Your task to perform on an android device: Open Google Image 0: 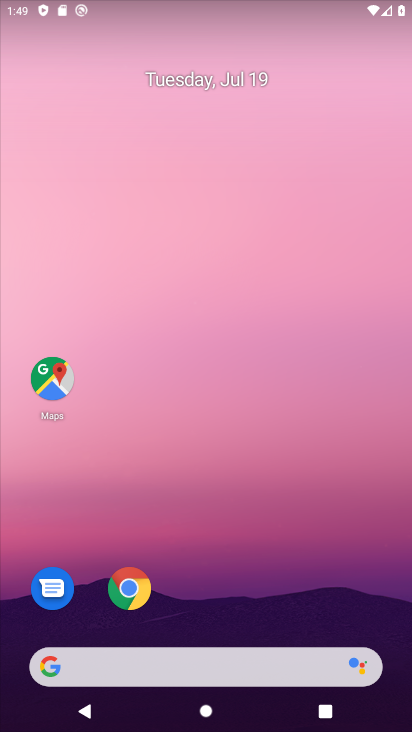
Step 0: click (50, 667)
Your task to perform on an android device: Open Google Image 1: 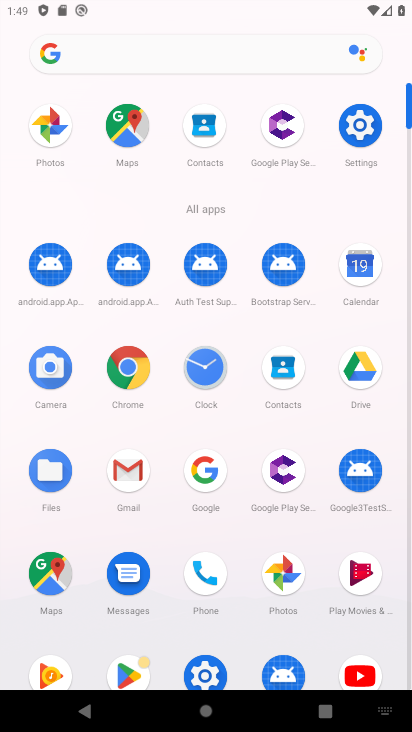
Step 1: click (201, 468)
Your task to perform on an android device: Open Google Image 2: 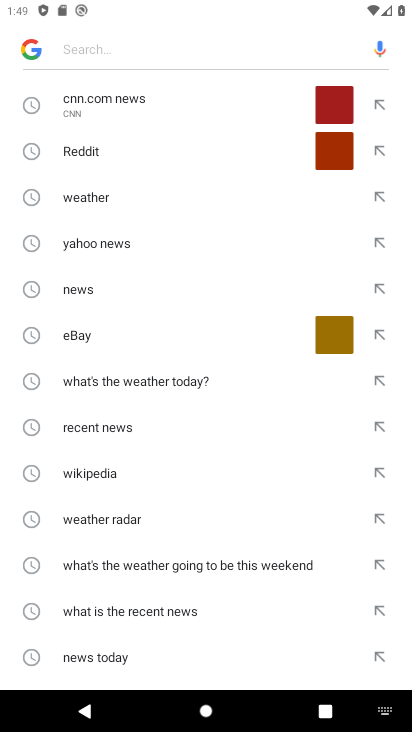
Step 2: click (30, 48)
Your task to perform on an android device: Open Google Image 3: 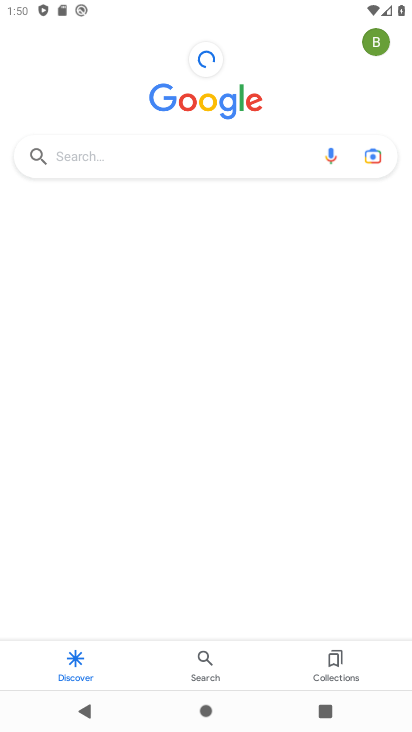
Step 3: task complete